Your task to perform on an android device: Go to Google Image 0: 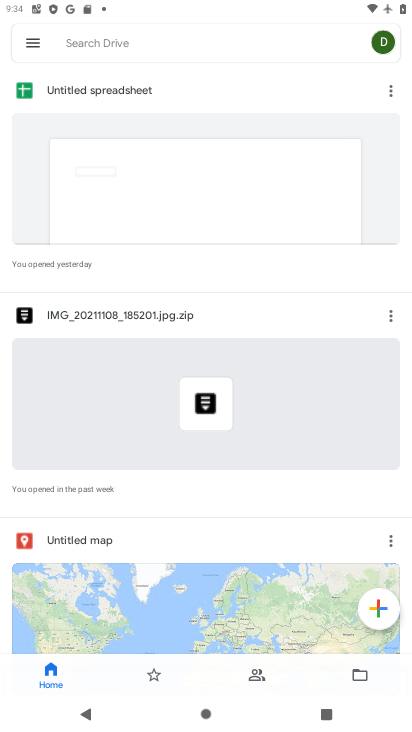
Step 0: press home button
Your task to perform on an android device: Go to Google Image 1: 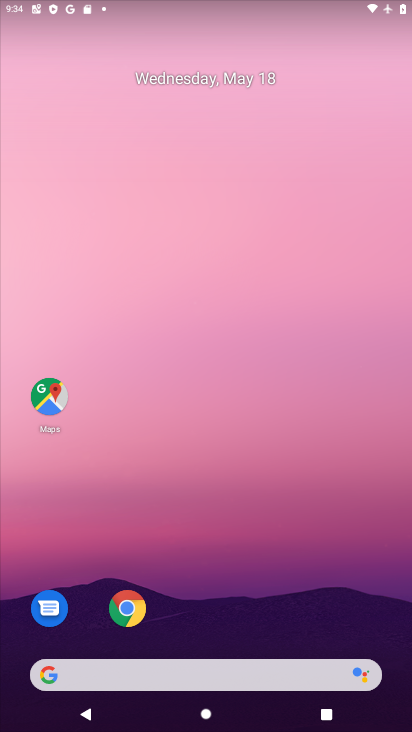
Step 1: click (119, 636)
Your task to perform on an android device: Go to Google Image 2: 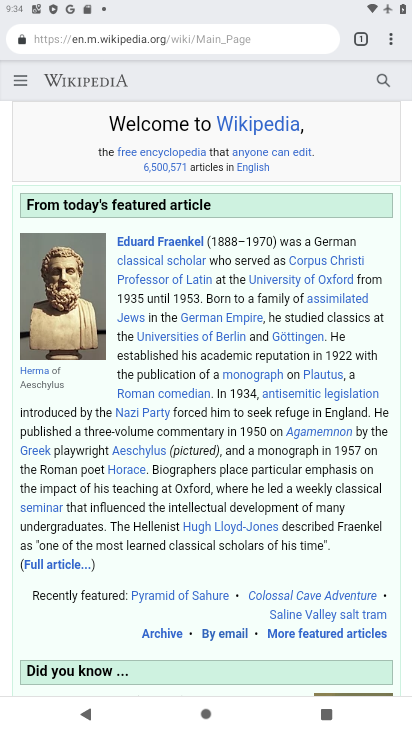
Step 2: click (201, 36)
Your task to perform on an android device: Go to Google Image 3: 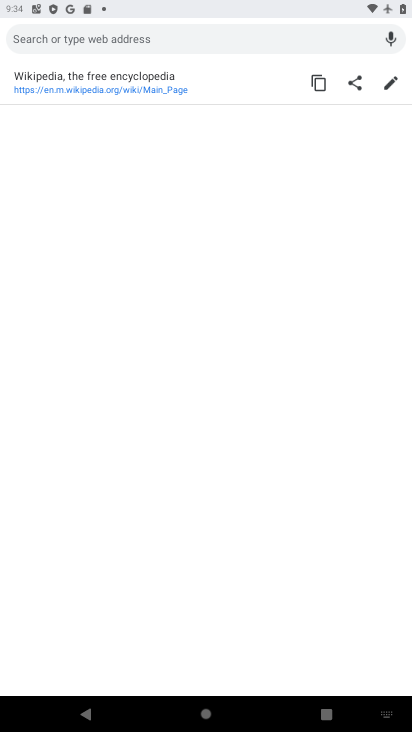
Step 3: type "google.com"
Your task to perform on an android device: Go to Google Image 4: 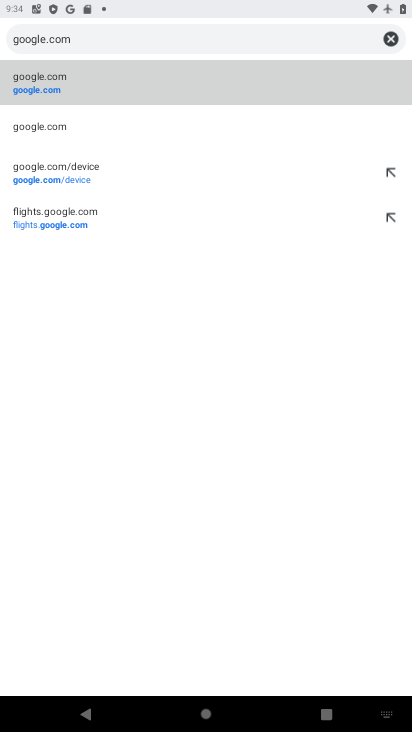
Step 4: click (156, 124)
Your task to perform on an android device: Go to Google Image 5: 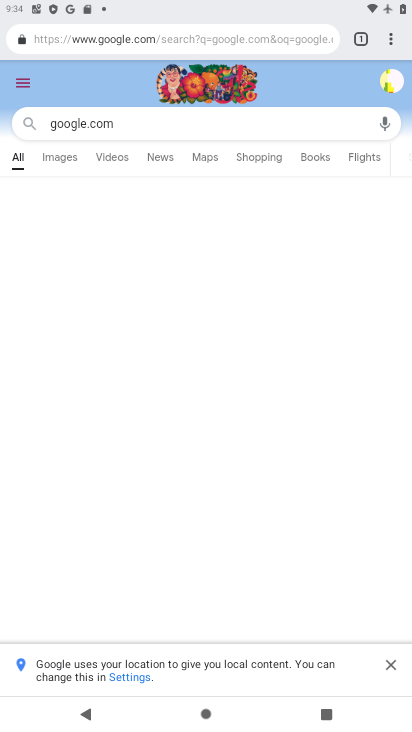
Step 5: task complete